Your task to perform on an android device: Go to Yahoo.com Image 0: 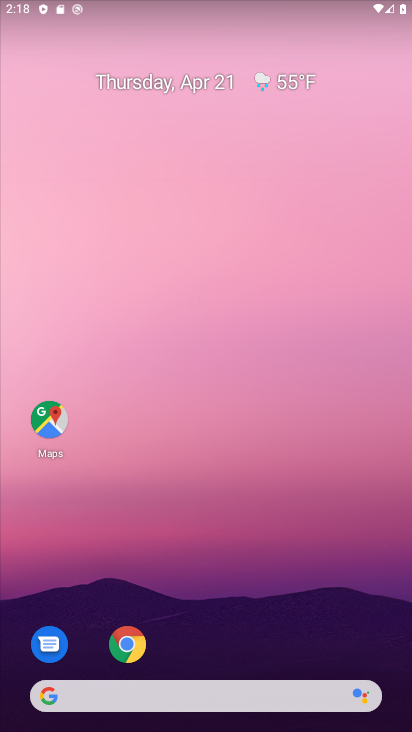
Step 0: click (124, 643)
Your task to perform on an android device: Go to Yahoo.com Image 1: 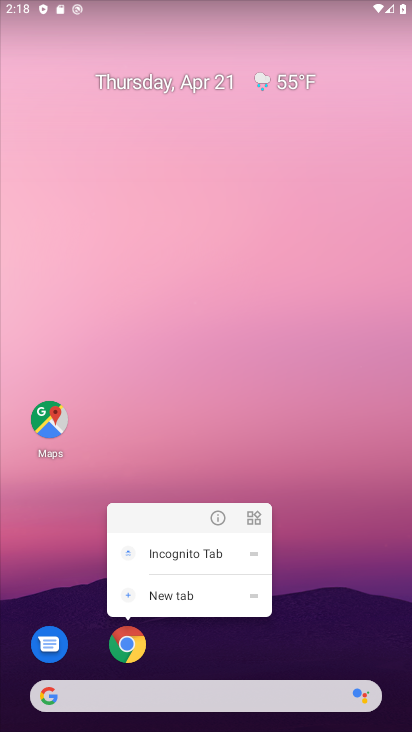
Step 1: click (131, 660)
Your task to perform on an android device: Go to Yahoo.com Image 2: 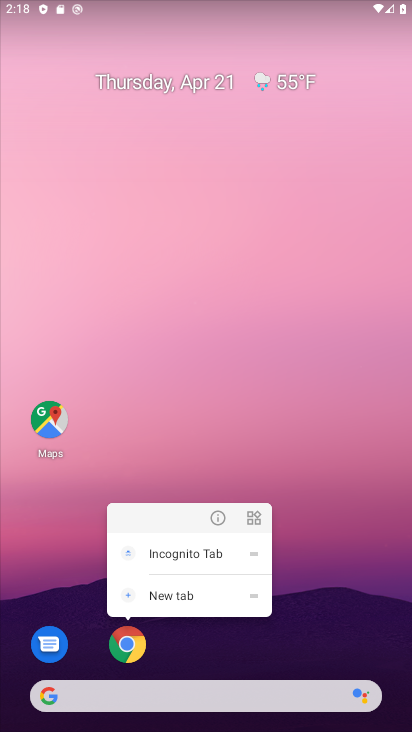
Step 2: click (133, 645)
Your task to perform on an android device: Go to Yahoo.com Image 3: 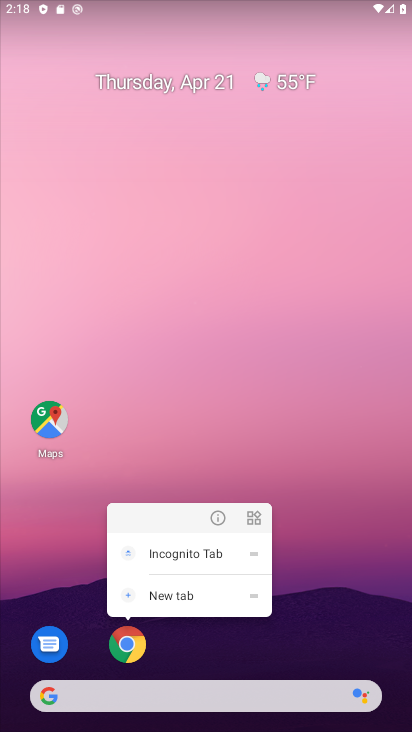
Step 3: click (125, 642)
Your task to perform on an android device: Go to Yahoo.com Image 4: 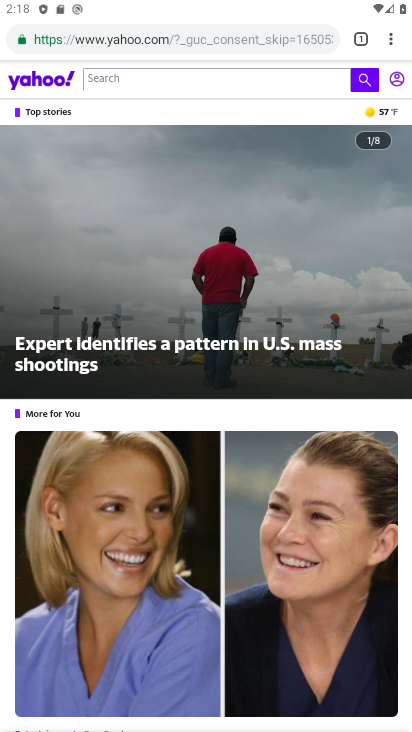
Step 4: click (171, 36)
Your task to perform on an android device: Go to Yahoo.com Image 5: 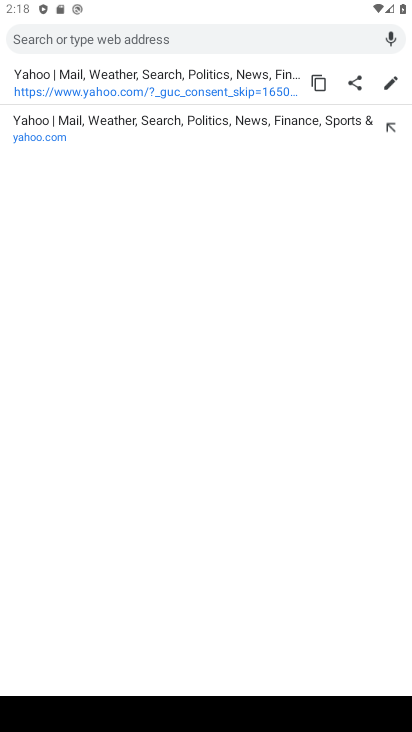
Step 5: type "yahoo.com"
Your task to perform on an android device: Go to Yahoo.com Image 6: 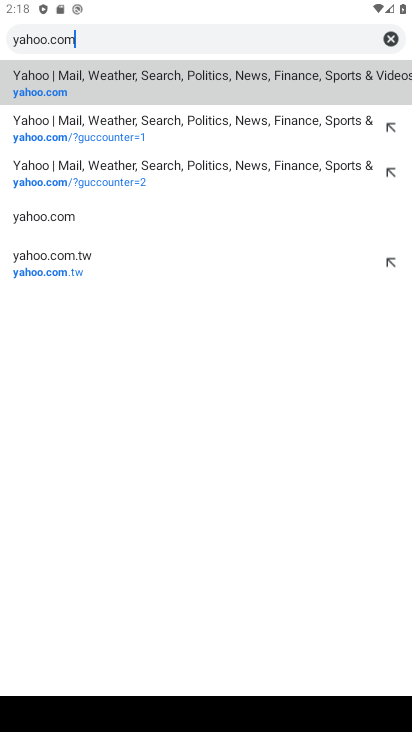
Step 6: click (41, 94)
Your task to perform on an android device: Go to Yahoo.com Image 7: 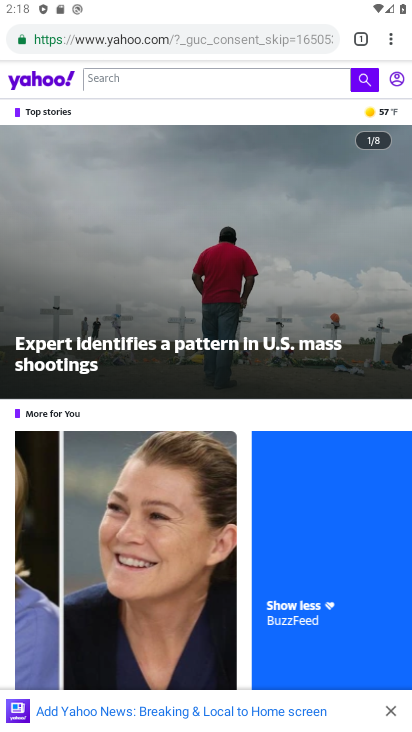
Step 7: task complete